Your task to perform on an android device: Open network settings Image 0: 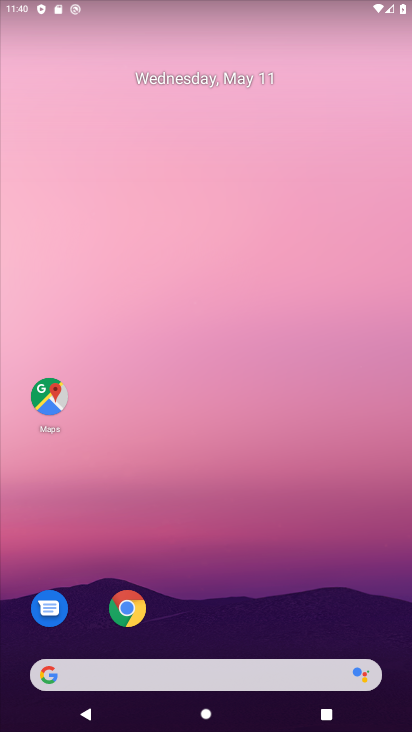
Step 0: drag from (273, 614) to (312, 69)
Your task to perform on an android device: Open network settings Image 1: 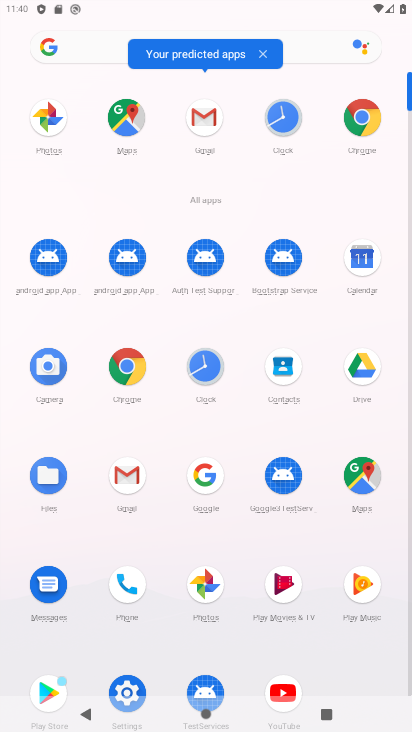
Step 1: click (130, 680)
Your task to perform on an android device: Open network settings Image 2: 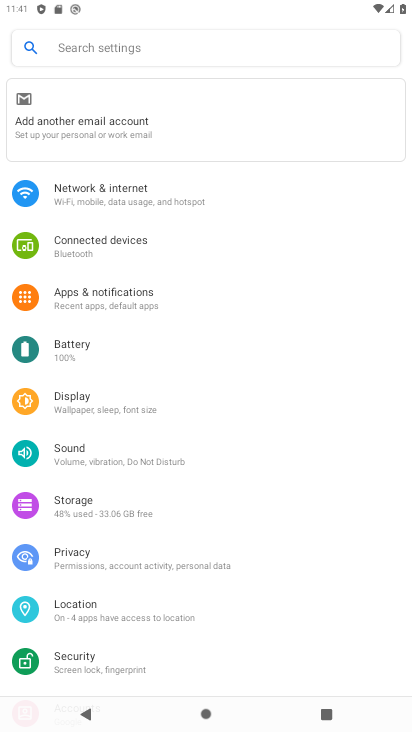
Step 2: click (162, 211)
Your task to perform on an android device: Open network settings Image 3: 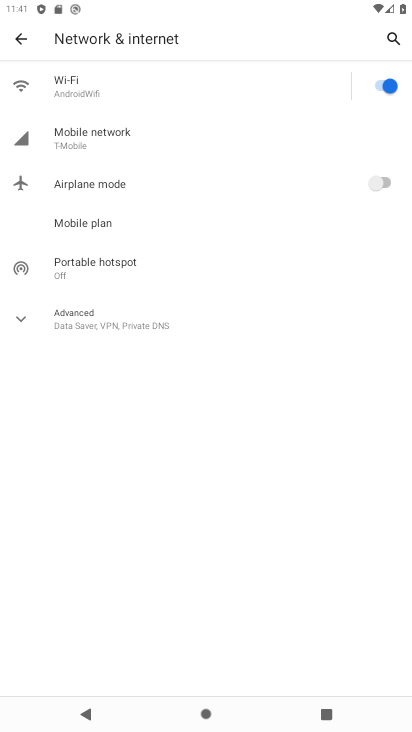
Step 3: click (62, 144)
Your task to perform on an android device: Open network settings Image 4: 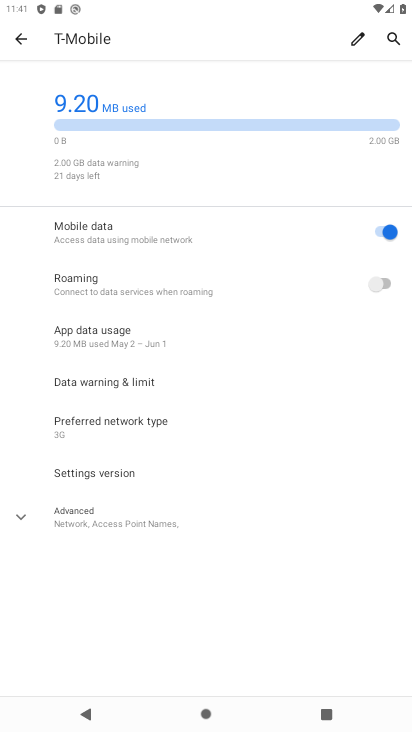
Step 4: click (36, 510)
Your task to perform on an android device: Open network settings Image 5: 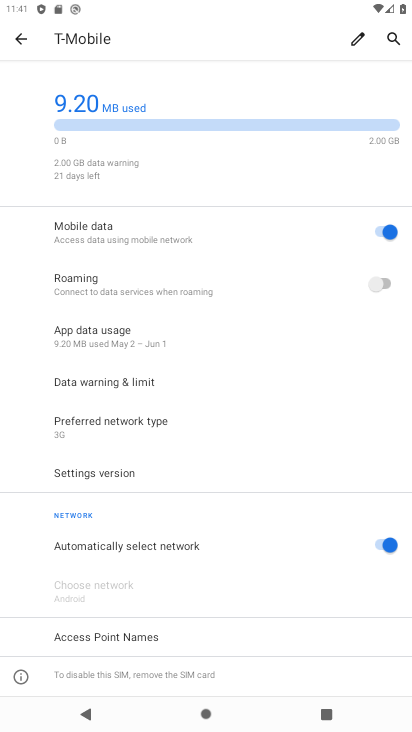
Step 5: task complete